Your task to perform on an android device: visit the assistant section in the google photos Image 0: 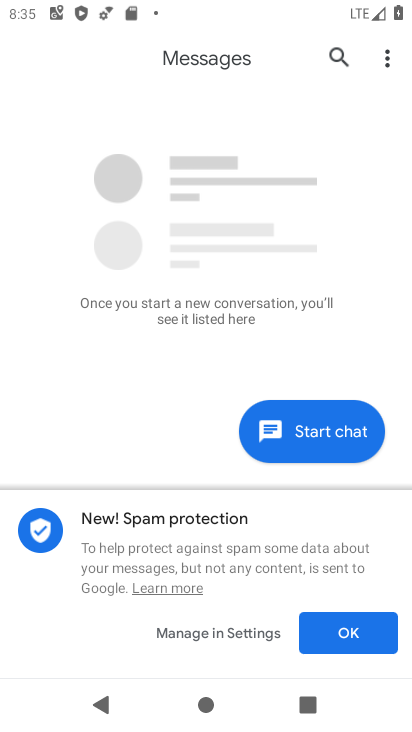
Step 0: press home button
Your task to perform on an android device: visit the assistant section in the google photos Image 1: 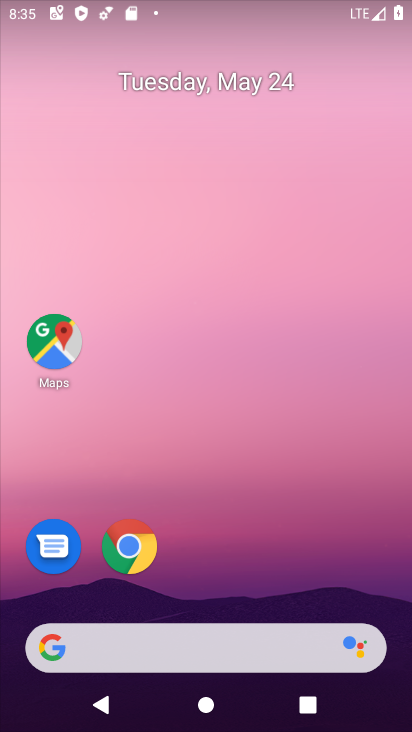
Step 1: drag from (276, 573) to (240, 34)
Your task to perform on an android device: visit the assistant section in the google photos Image 2: 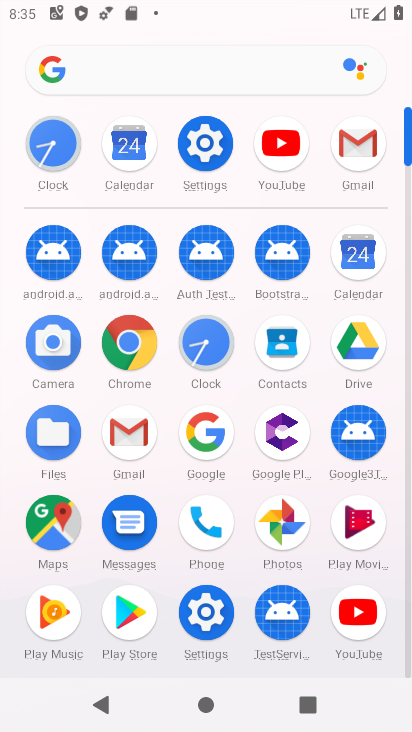
Step 2: click (282, 510)
Your task to perform on an android device: visit the assistant section in the google photos Image 3: 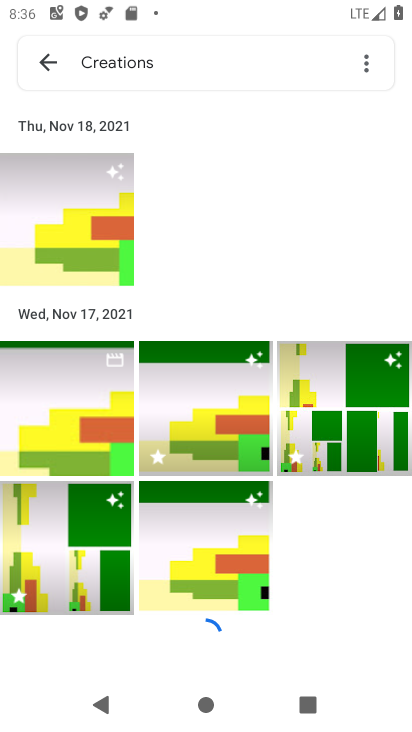
Step 3: click (47, 63)
Your task to perform on an android device: visit the assistant section in the google photos Image 4: 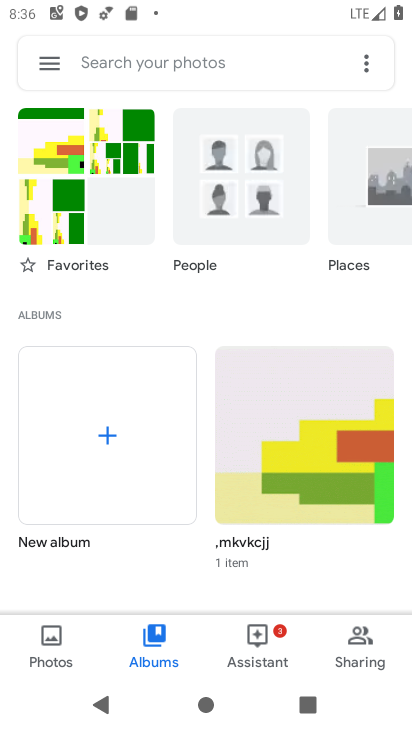
Step 4: click (260, 650)
Your task to perform on an android device: visit the assistant section in the google photos Image 5: 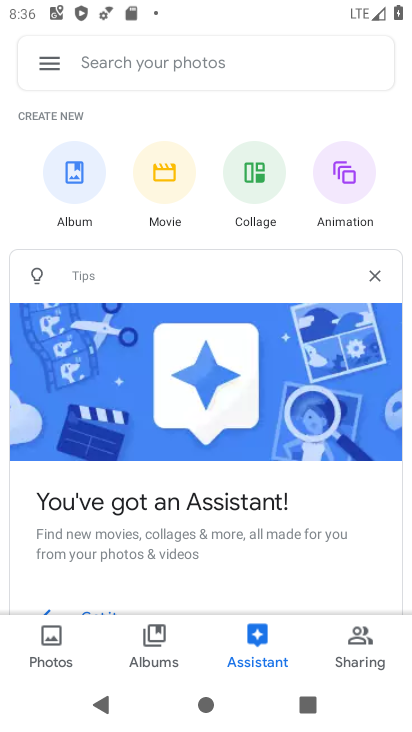
Step 5: task complete